Your task to perform on an android device: What's the weather? Image 0: 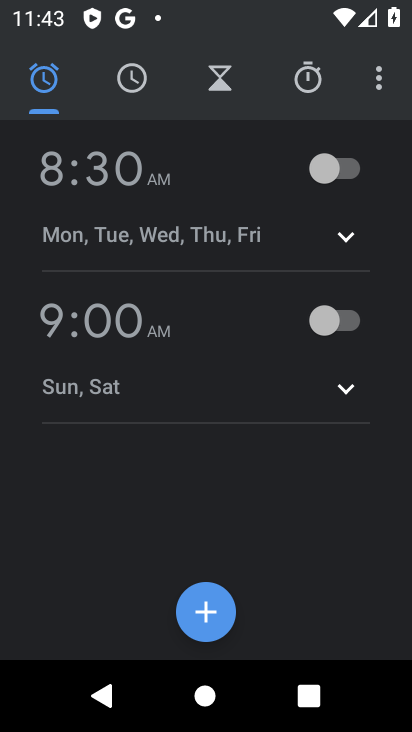
Step 0: press home button
Your task to perform on an android device: What's the weather? Image 1: 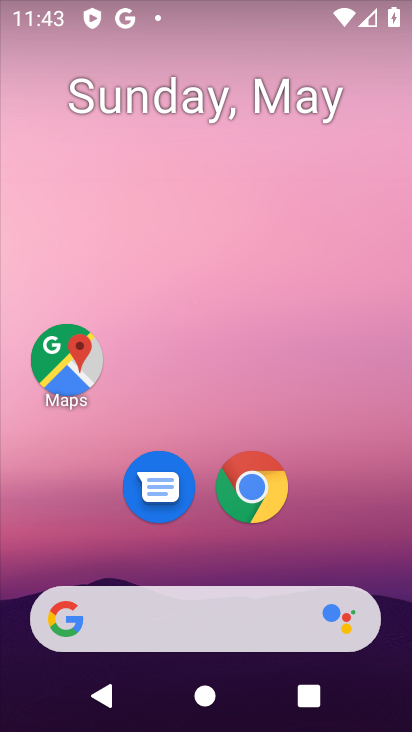
Step 1: click (211, 616)
Your task to perform on an android device: What's the weather? Image 2: 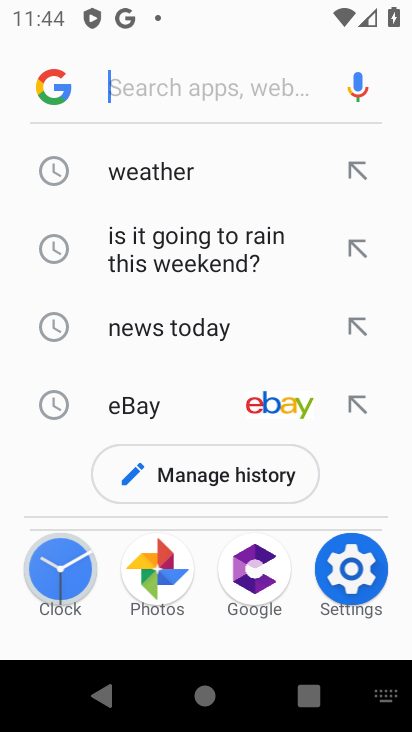
Step 2: type "what's the weather"
Your task to perform on an android device: What's the weather? Image 3: 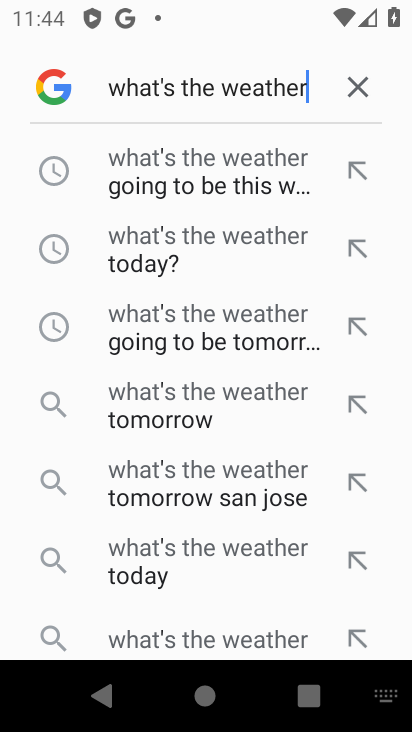
Step 3: click (210, 635)
Your task to perform on an android device: What's the weather? Image 4: 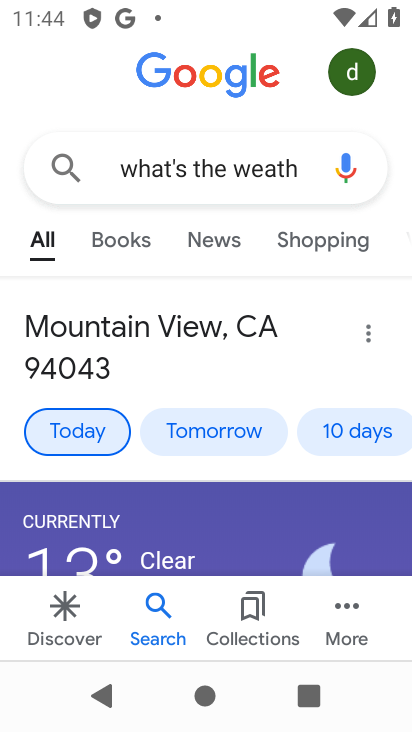
Step 4: task complete